Your task to perform on an android device: Go to Wikipedia Image 0: 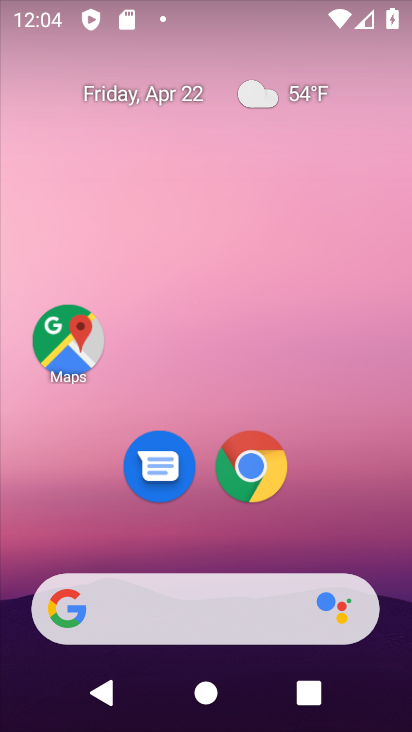
Step 0: click (253, 477)
Your task to perform on an android device: Go to Wikipedia Image 1: 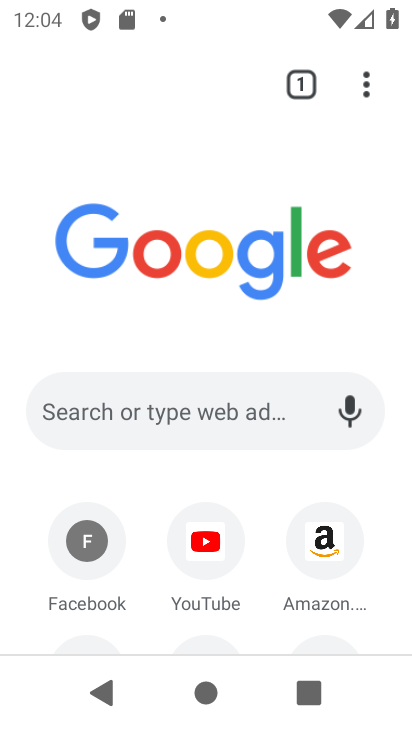
Step 1: drag from (132, 633) to (142, 370)
Your task to perform on an android device: Go to Wikipedia Image 2: 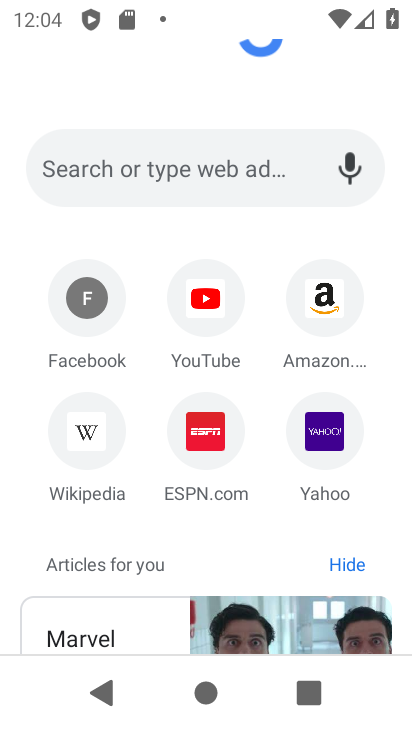
Step 2: click (102, 429)
Your task to perform on an android device: Go to Wikipedia Image 3: 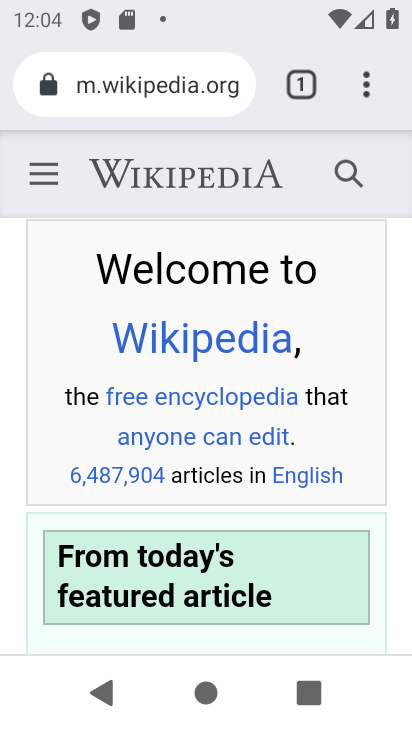
Step 3: task complete